Your task to perform on an android device: open sync settings in chrome Image 0: 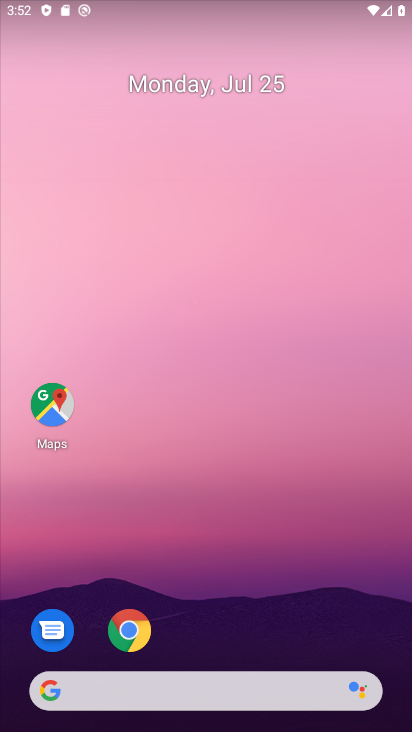
Step 0: click (126, 625)
Your task to perform on an android device: open sync settings in chrome Image 1: 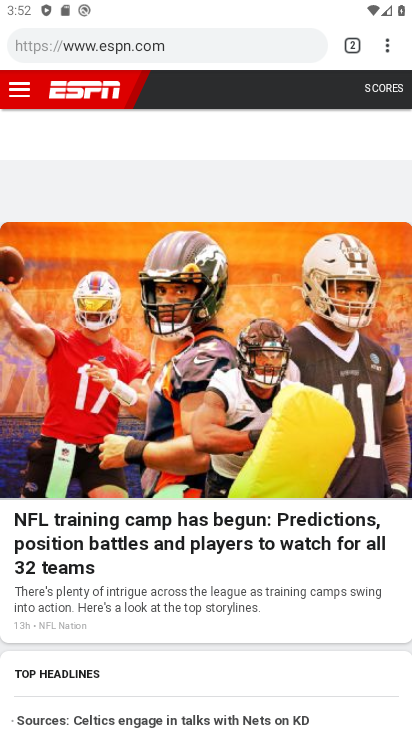
Step 1: click (390, 45)
Your task to perform on an android device: open sync settings in chrome Image 2: 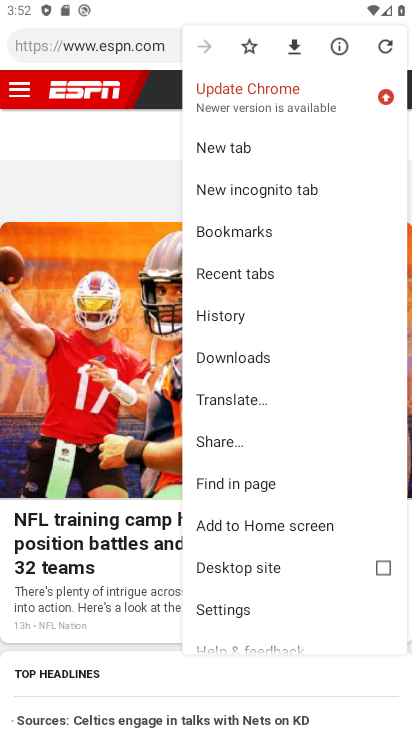
Step 2: click (251, 611)
Your task to perform on an android device: open sync settings in chrome Image 3: 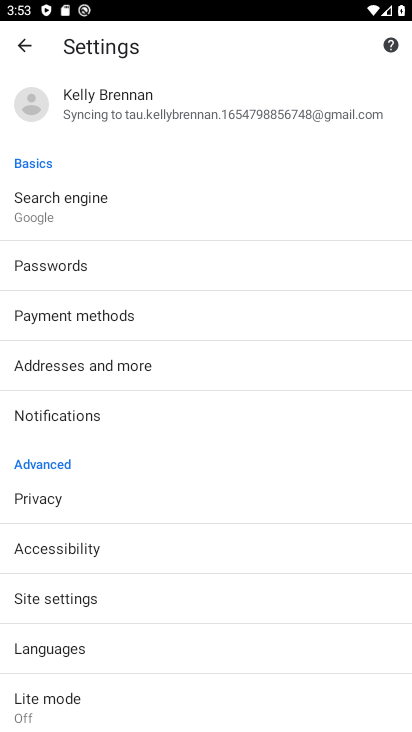
Step 3: click (184, 120)
Your task to perform on an android device: open sync settings in chrome Image 4: 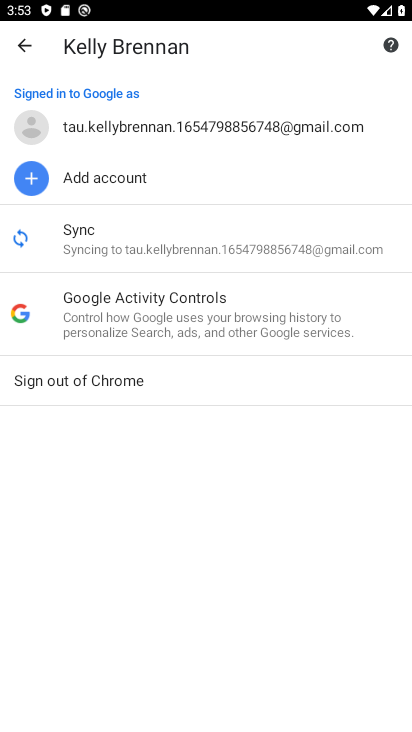
Step 4: click (192, 253)
Your task to perform on an android device: open sync settings in chrome Image 5: 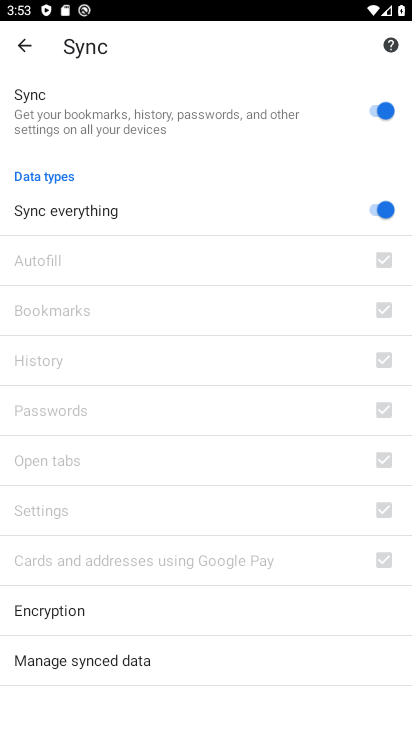
Step 5: task complete